Your task to perform on an android device: manage bookmarks in the chrome app Image 0: 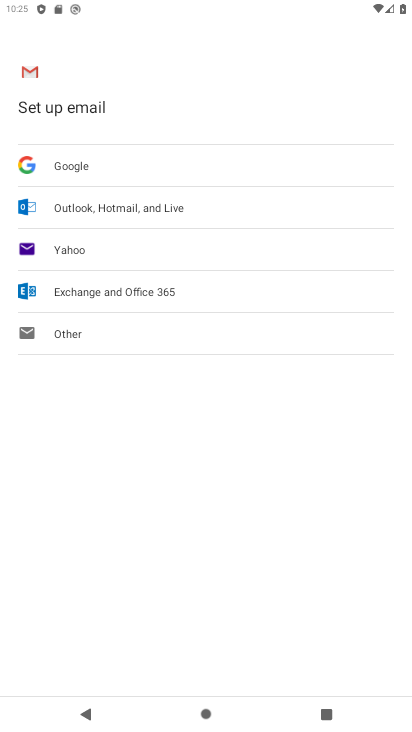
Step 0: press home button
Your task to perform on an android device: manage bookmarks in the chrome app Image 1: 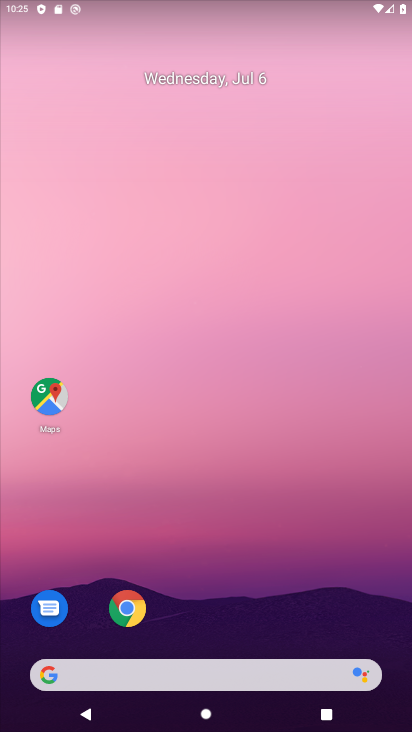
Step 1: drag from (232, 577) to (256, 113)
Your task to perform on an android device: manage bookmarks in the chrome app Image 2: 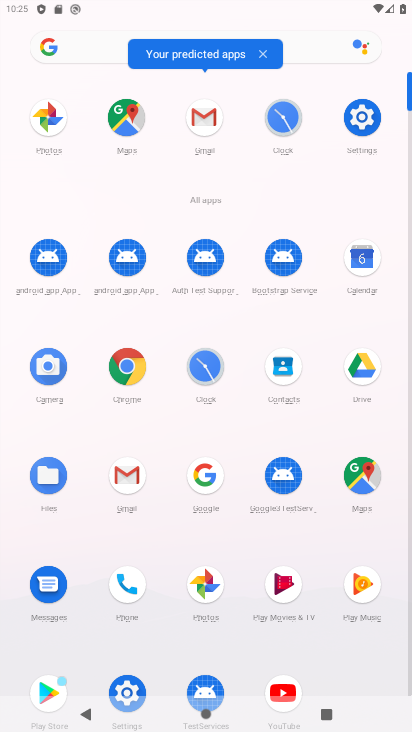
Step 2: click (134, 370)
Your task to perform on an android device: manage bookmarks in the chrome app Image 3: 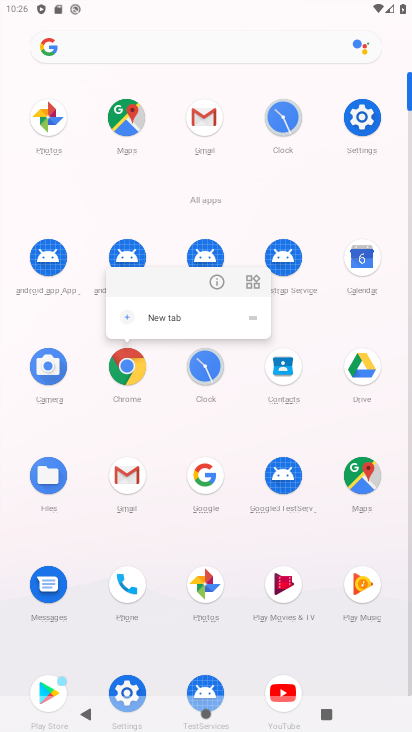
Step 3: click (135, 378)
Your task to perform on an android device: manage bookmarks in the chrome app Image 4: 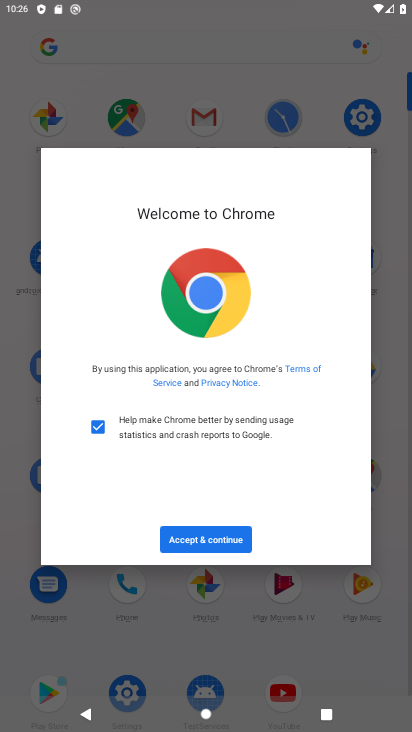
Step 4: click (228, 544)
Your task to perform on an android device: manage bookmarks in the chrome app Image 5: 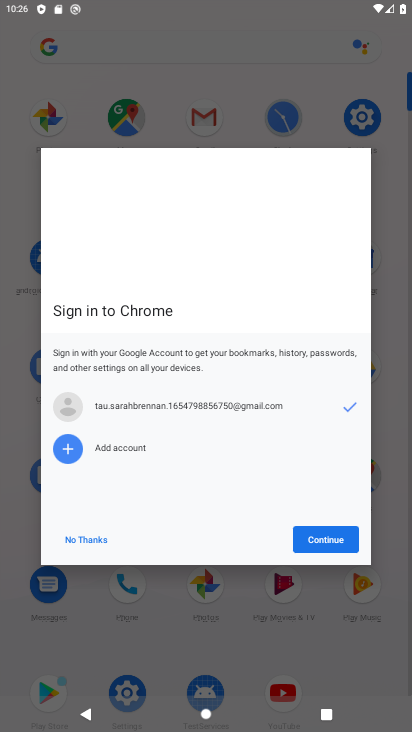
Step 5: click (310, 540)
Your task to perform on an android device: manage bookmarks in the chrome app Image 6: 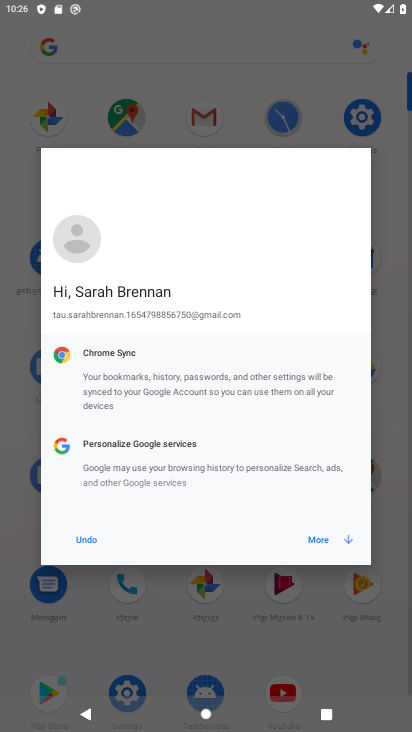
Step 6: click (332, 534)
Your task to perform on an android device: manage bookmarks in the chrome app Image 7: 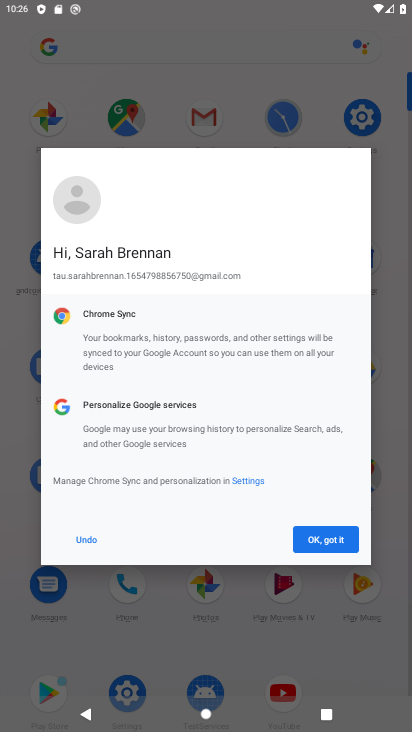
Step 7: click (374, 536)
Your task to perform on an android device: manage bookmarks in the chrome app Image 8: 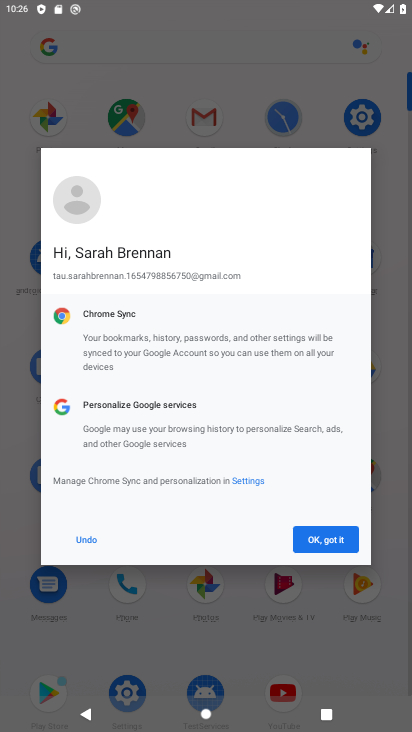
Step 8: click (340, 538)
Your task to perform on an android device: manage bookmarks in the chrome app Image 9: 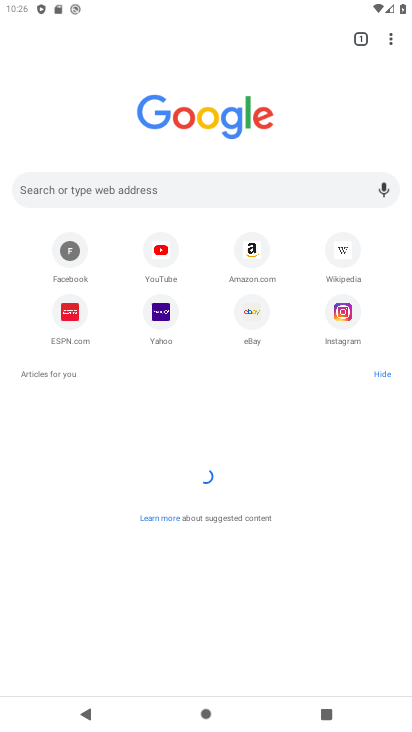
Step 9: task complete